Your task to perform on an android device: Go to Google Image 0: 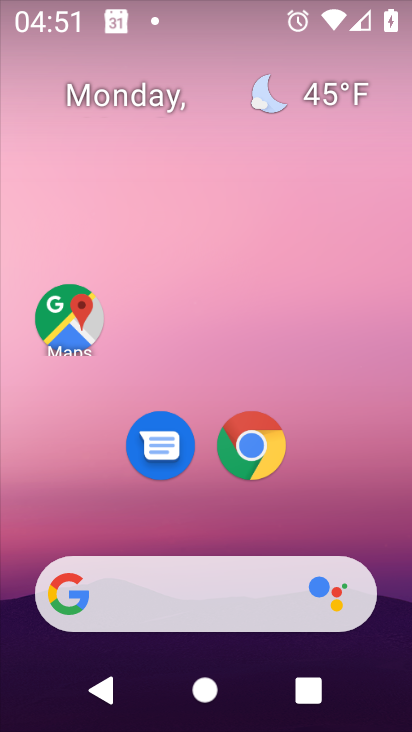
Step 0: drag from (268, 398) to (264, 1)
Your task to perform on an android device: Go to Google Image 1: 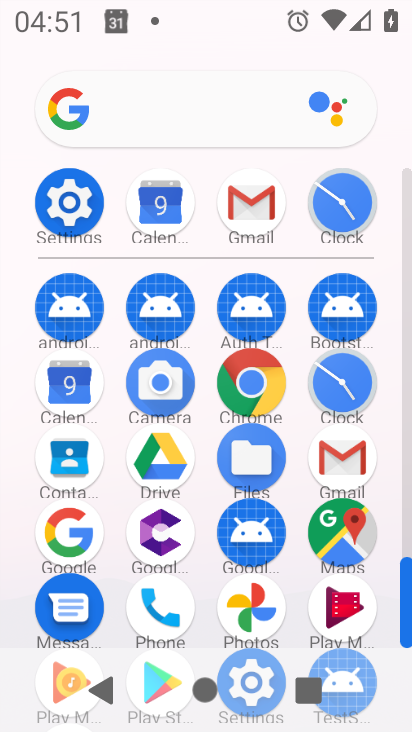
Step 1: click (67, 551)
Your task to perform on an android device: Go to Google Image 2: 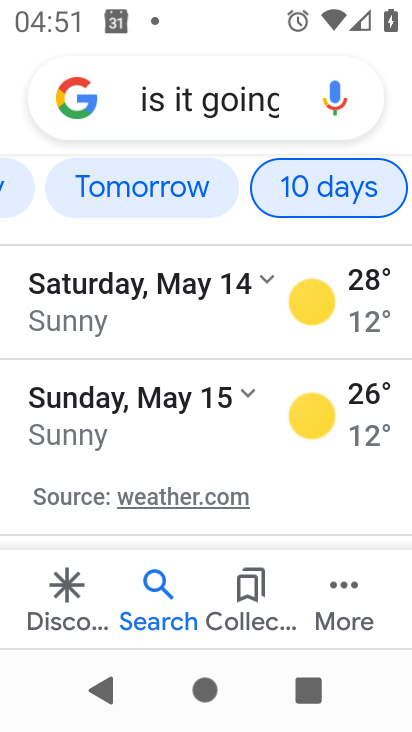
Step 2: task complete